Your task to perform on an android device: Open eBay Image 0: 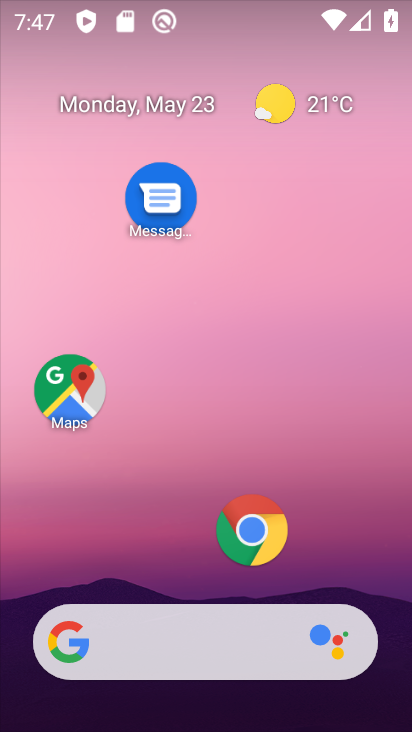
Step 0: click (226, 633)
Your task to perform on an android device: Open eBay Image 1: 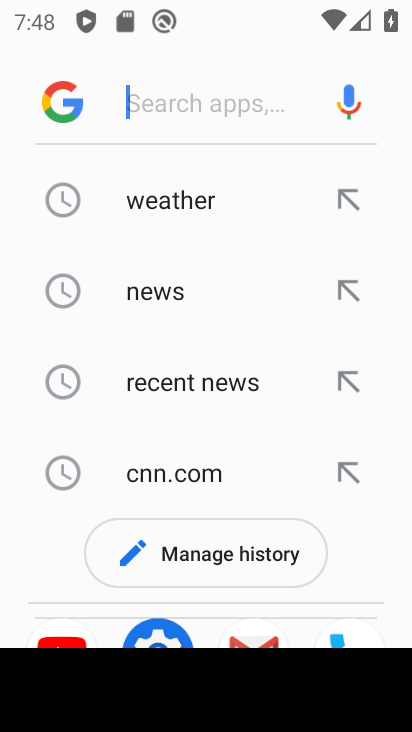
Step 1: type "ebay"
Your task to perform on an android device: Open eBay Image 2: 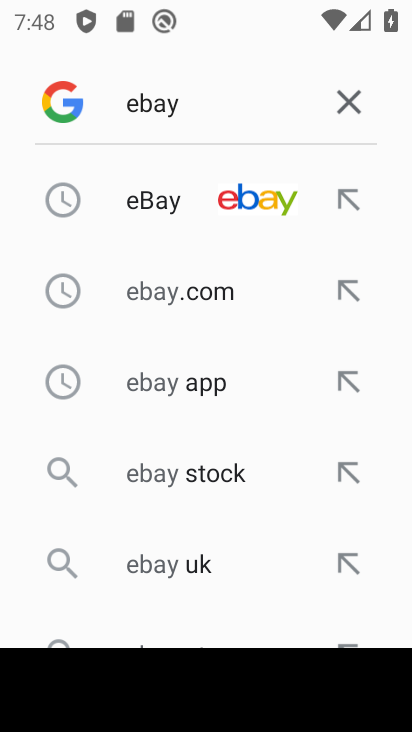
Step 2: click (236, 208)
Your task to perform on an android device: Open eBay Image 3: 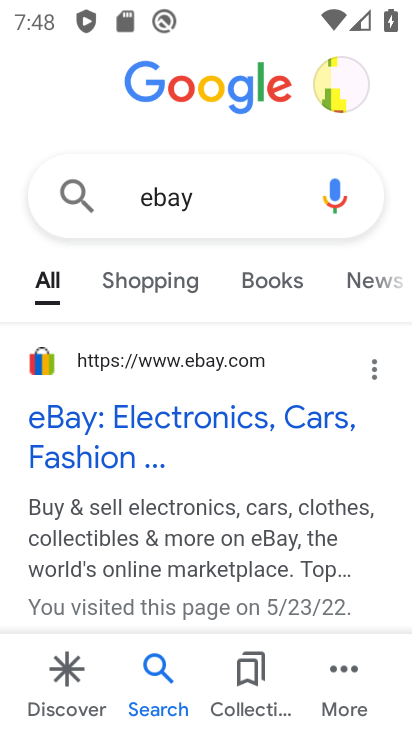
Step 3: click (103, 417)
Your task to perform on an android device: Open eBay Image 4: 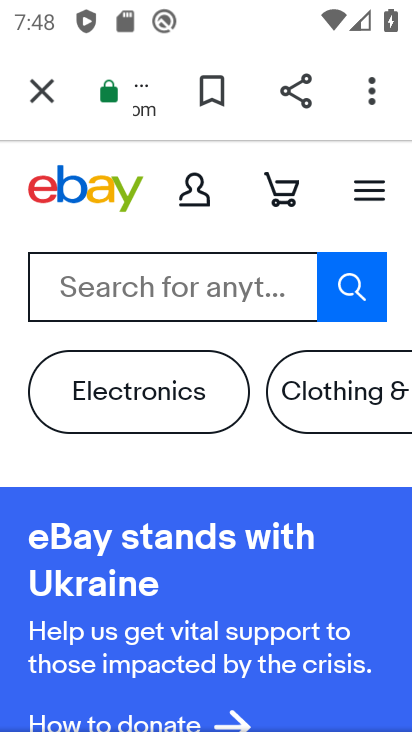
Step 4: task complete